Your task to perform on an android device: check data usage Image 0: 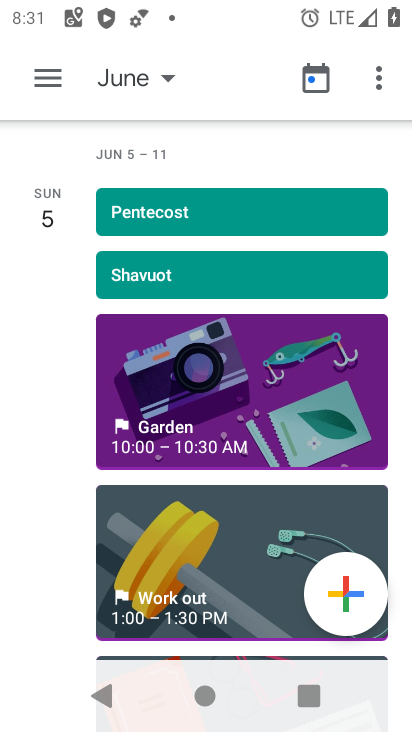
Step 0: press home button
Your task to perform on an android device: check data usage Image 1: 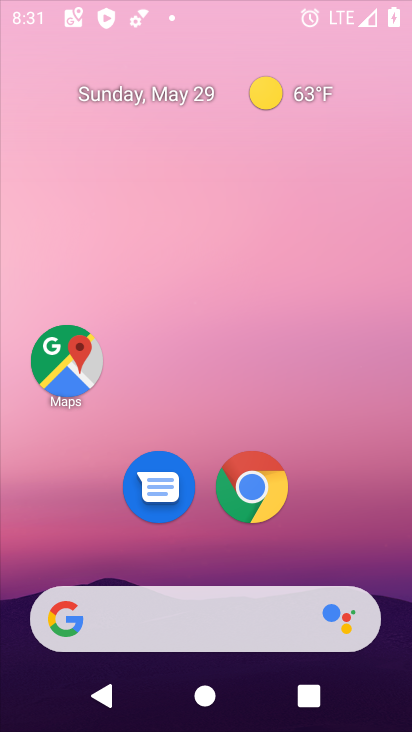
Step 1: drag from (283, 622) to (304, 45)
Your task to perform on an android device: check data usage Image 2: 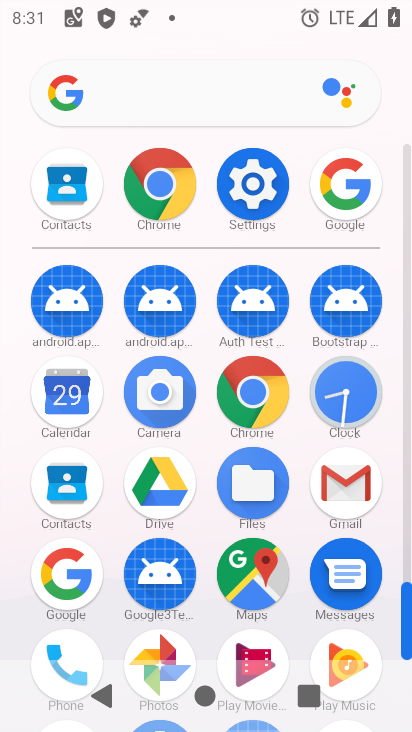
Step 2: drag from (280, 470) to (312, 212)
Your task to perform on an android device: check data usage Image 3: 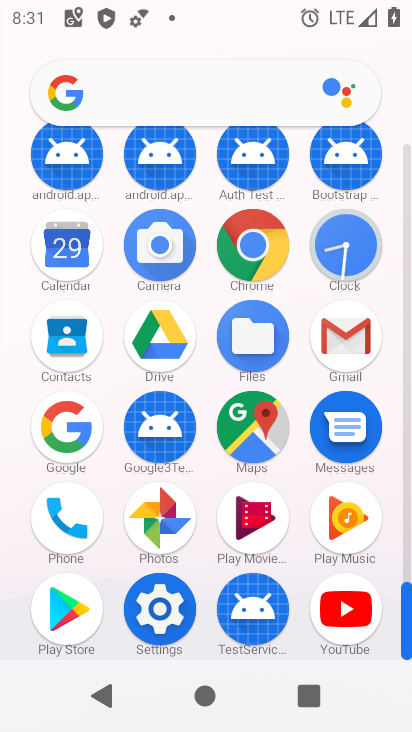
Step 3: drag from (196, 469) to (226, 132)
Your task to perform on an android device: check data usage Image 4: 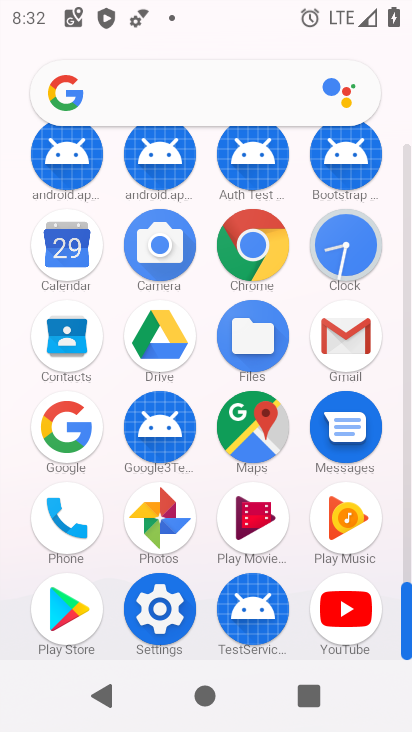
Step 4: click (166, 601)
Your task to perform on an android device: check data usage Image 5: 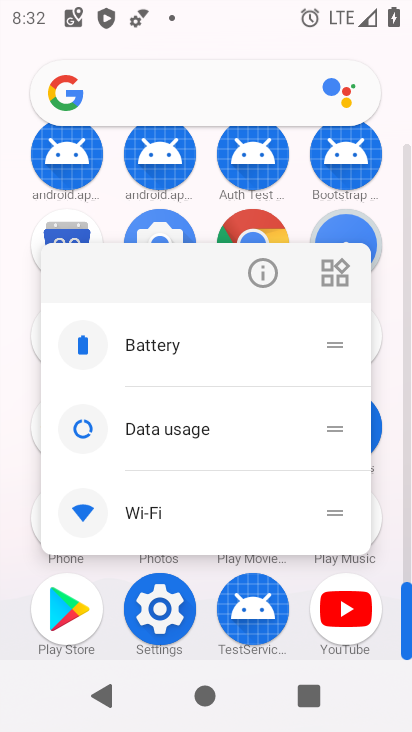
Step 5: click (156, 631)
Your task to perform on an android device: check data usage Image 6: 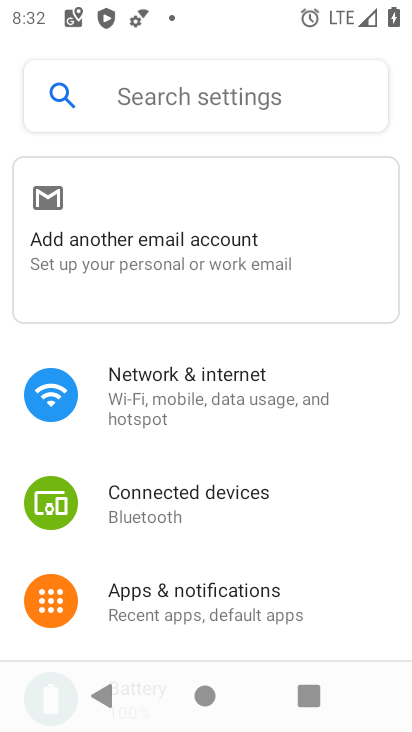
Step 6: drag from (193, 529) to (234, 311)
Your task to perform on an android device: check data usage Image 7: 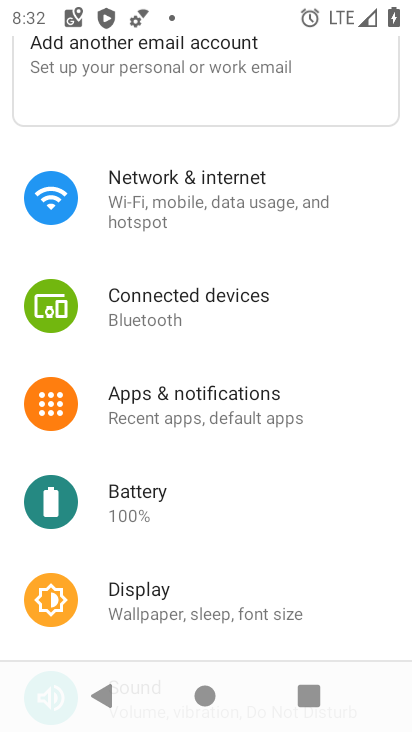
Step 7: click (246, 223)
Your task to perform on an android device: check data usage Image 8: 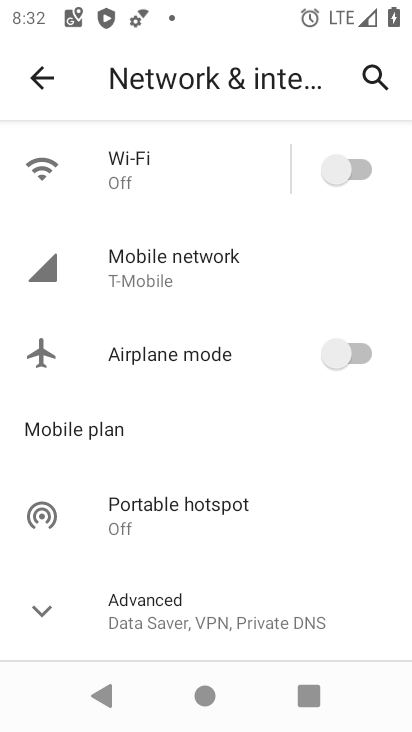
Step 8: click (180, 276)
Your task to perform on an android device: check data usage Image 9: 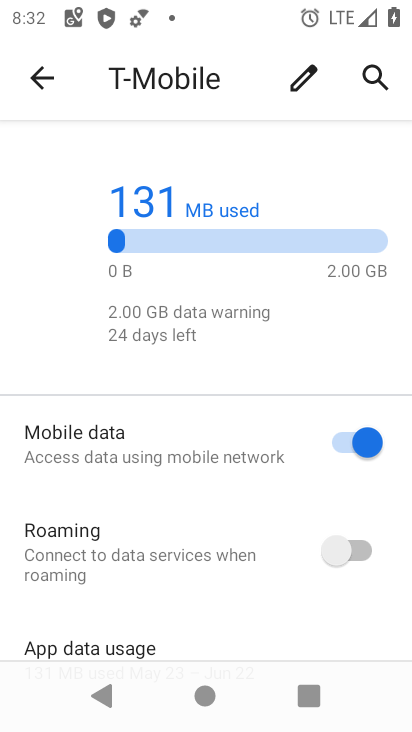
Step 9: drag from (121, 486) to (165, 192)
Your task to perform on an android device: check data usage Image 10: 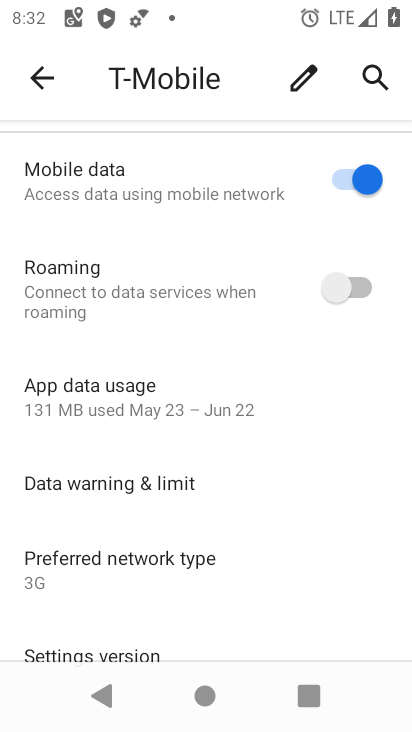
Step 10: click (180, 567)
Your task to perform on an android device: check data usage Image 11: 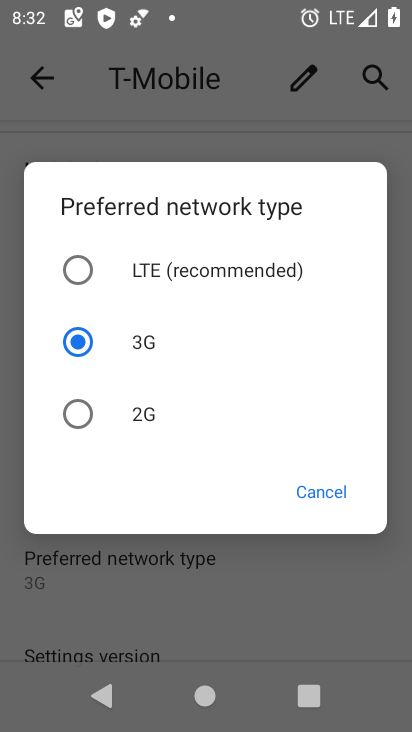
Step 11: task complete